Your task to perform on an android device: Search for razer naga on newegg, select the first entry, add it to the cart, then select checkout. Image 0: 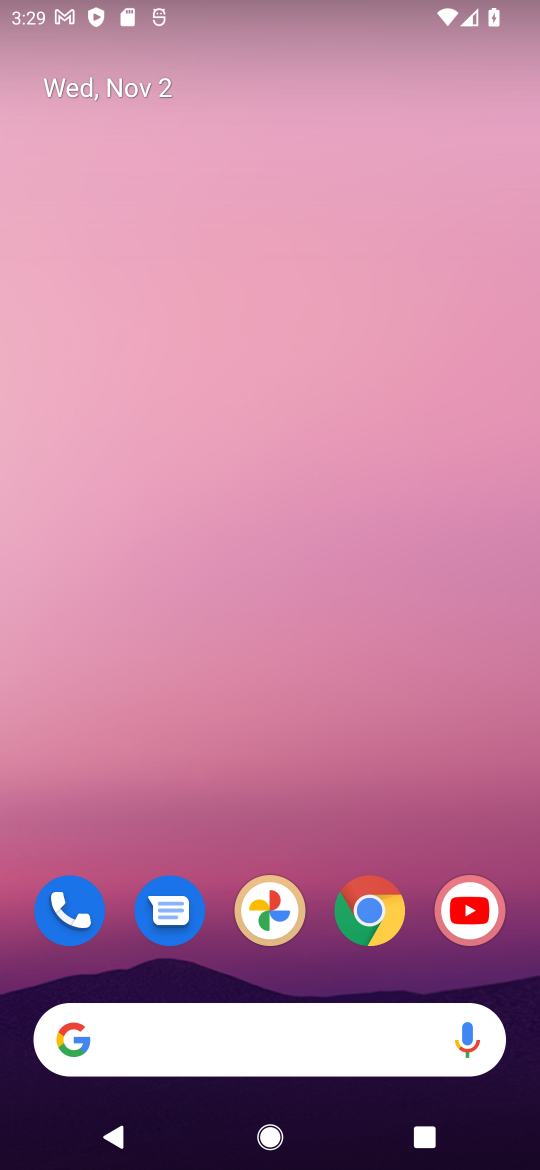
Step 0: click (371, 914)
Your task to perform on an android device: Search for razer naga on newegg, select the first entry, add it to the cart, then select checkout. Image 1: 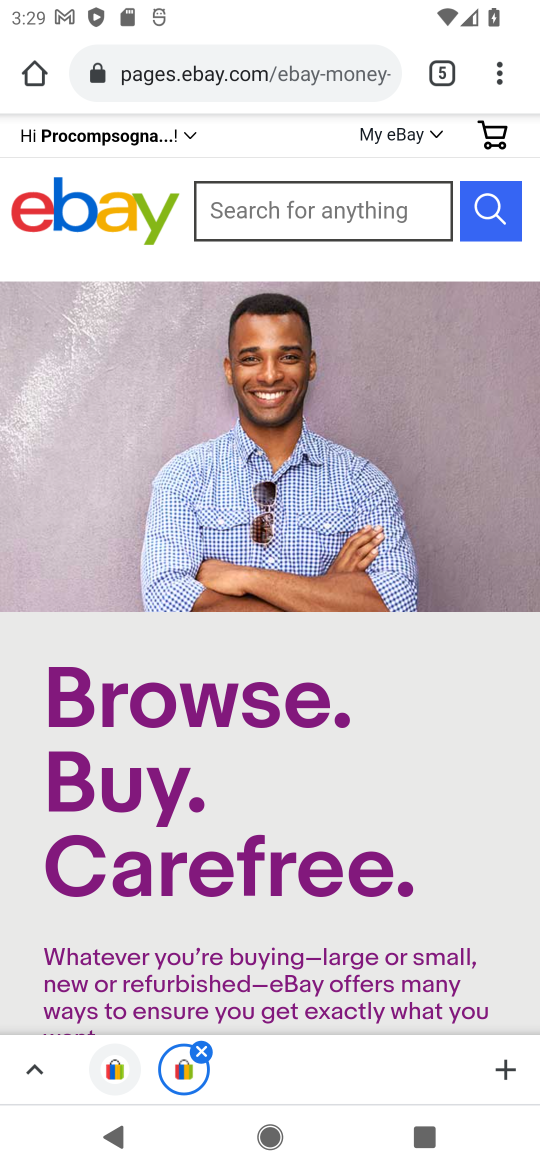
Step 1: click (444, 65)
Your task to perform on an android device: Search for razer naga on newegg, select the first entry, add it to the cart, then select checkout. Image 2: 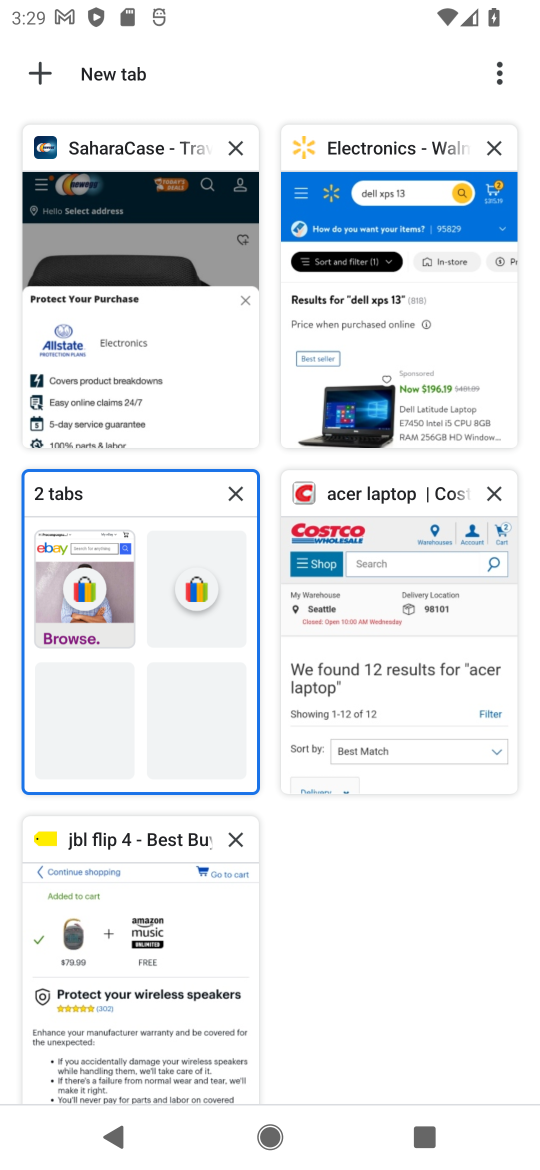
Step 2: click (81, 190)
Your task to perform on an android device: Search for razer naga on newegg, select the first entry, add it to the cart, then select checkout. Image 3: 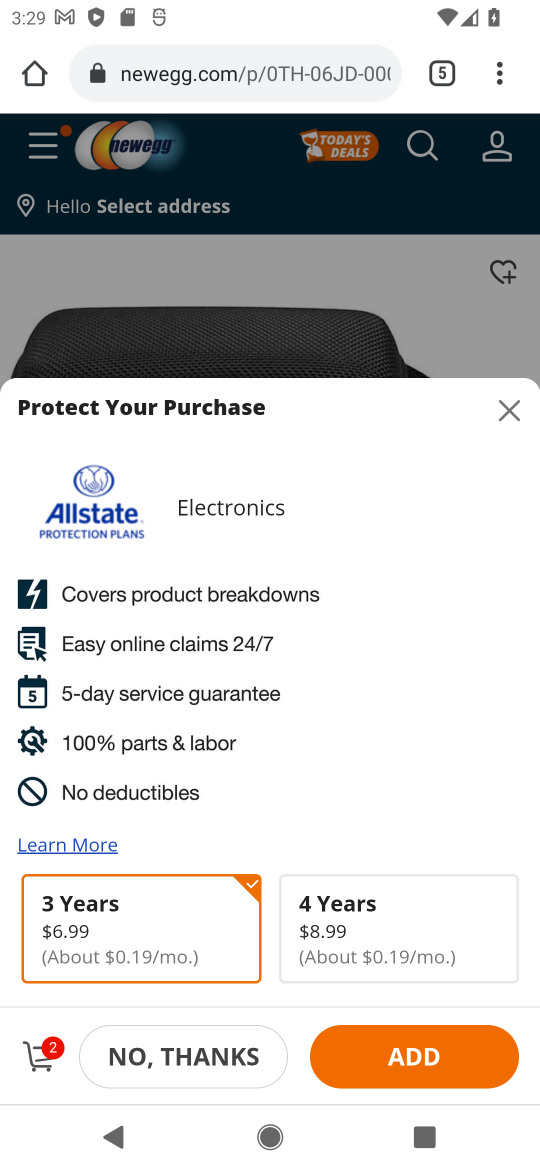
Step 3: click (228, 1060)
Your task to perform on an android device: Search for razer naga on newegg, select the first entry, add it to the cart, then select checkout. Image 4: 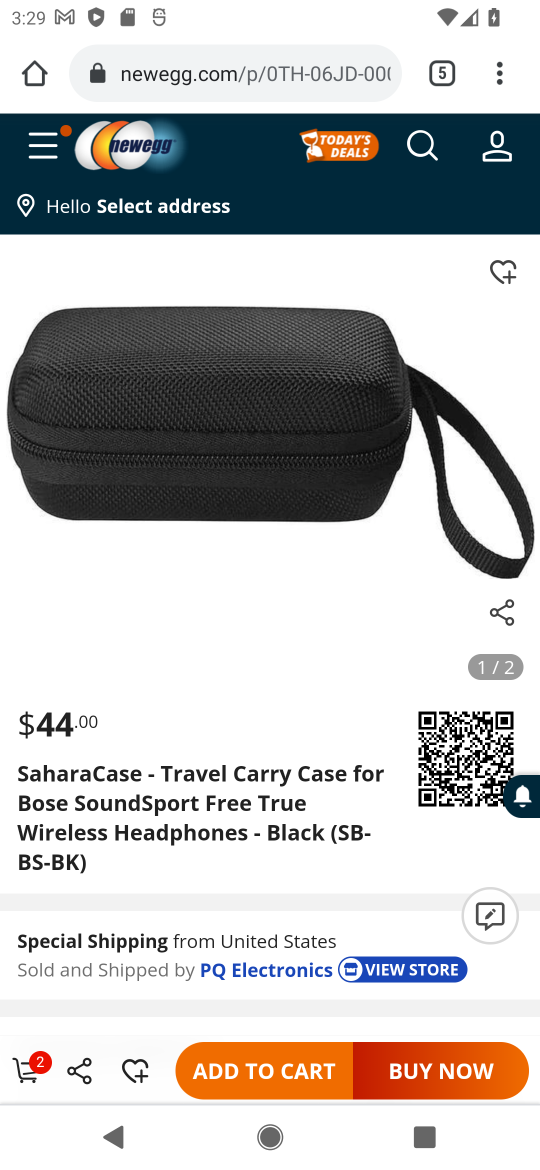
Step 4: click (424, 141)
Your task to perform on an android device: Search for razer naga on newegg, select the first entry, add it to the cart, then select checkout. Image 5: 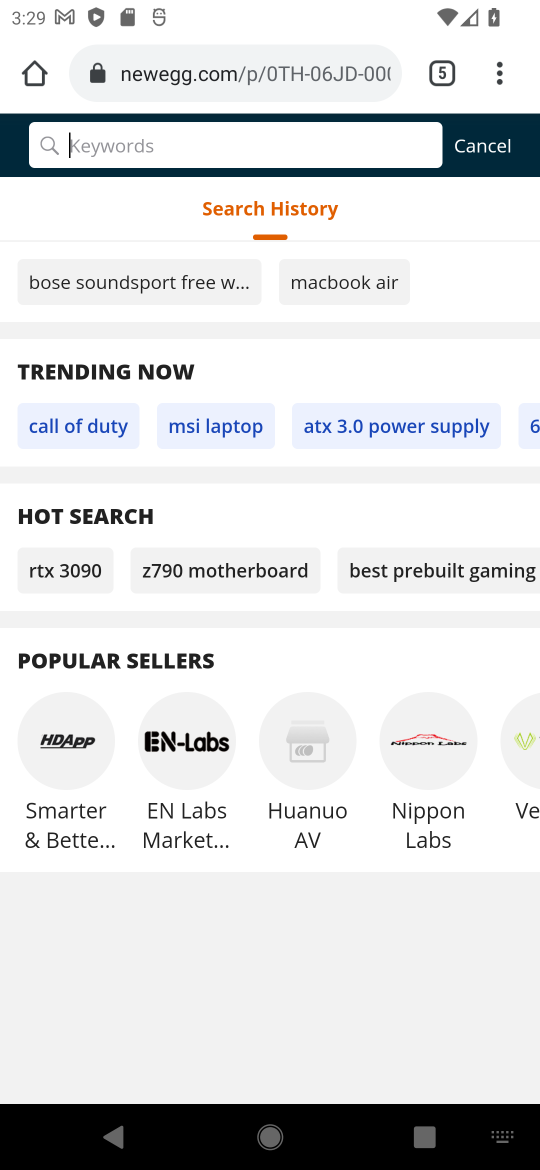
Step 5: type "razer naga"
Your task to perform on an android device: Search for razer naga on newegg, select the first entry, add it to the cart, then select checkout. Image 6: 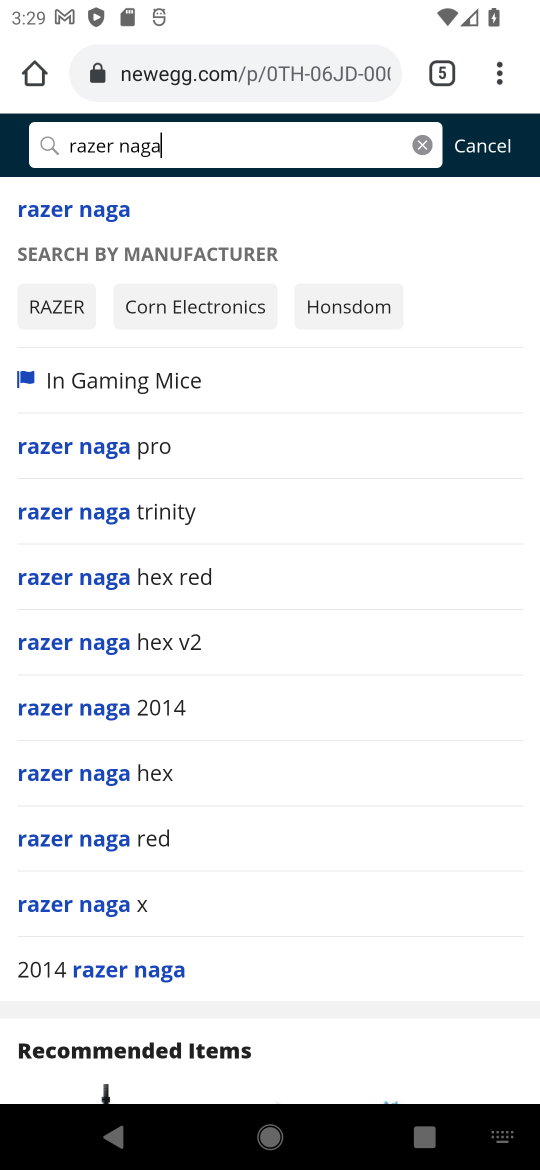
Step 6: click (107, 208)
Your task to perform on an android device: Search for razer naga on newegg, select the first entry, add it to the cart, then select checkout. Image 7: 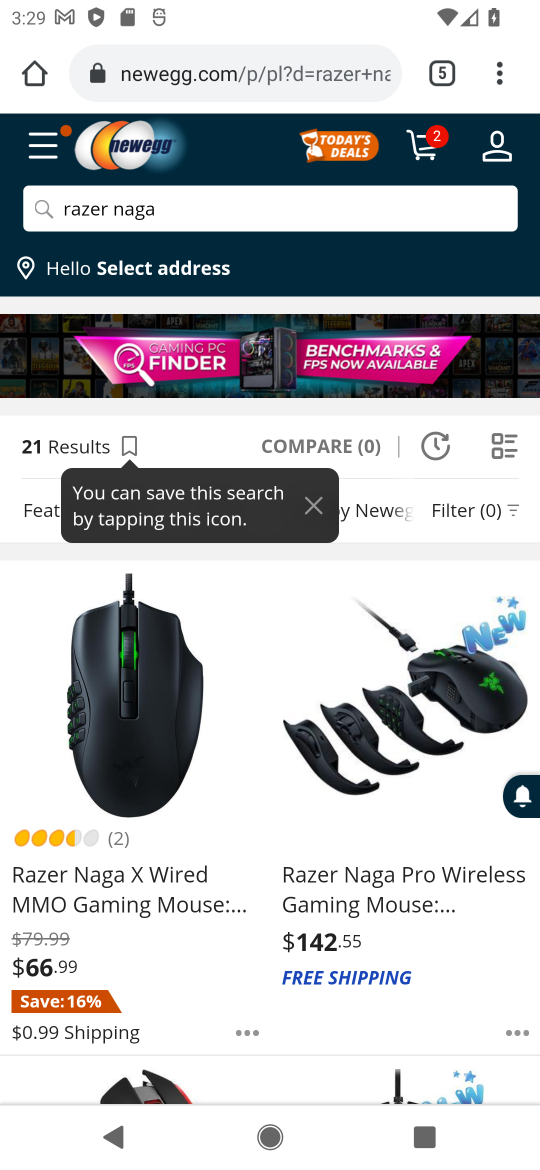
Step 7: click (79, 885)
Your task to perform on an android device: Search for razer naga on newegg, select the first entry, add it to the cart, then select checkout. Image 8: 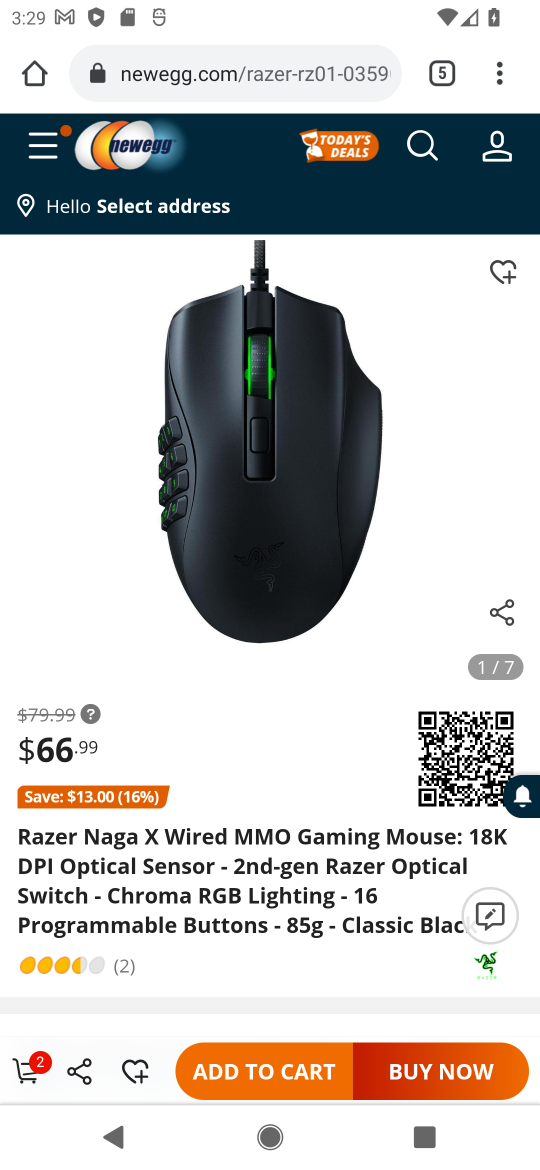
Step 8: click (220, 1069)
Your task to perform on an android device: Search for razer naga on newegg, select the first entry, add it to the cart, then select checkout. Image 9: 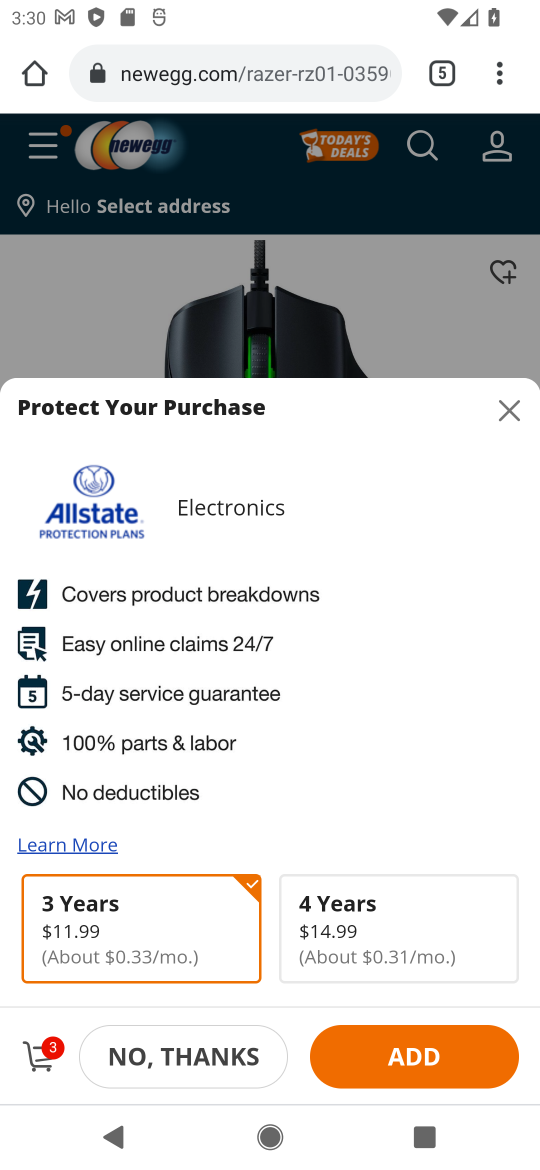
Step 9: click (159, 1065)
Your task to perform on an android device: Search for razer naga on newegg, select the first entry, add it to the cart, then select checkout. Image 10: 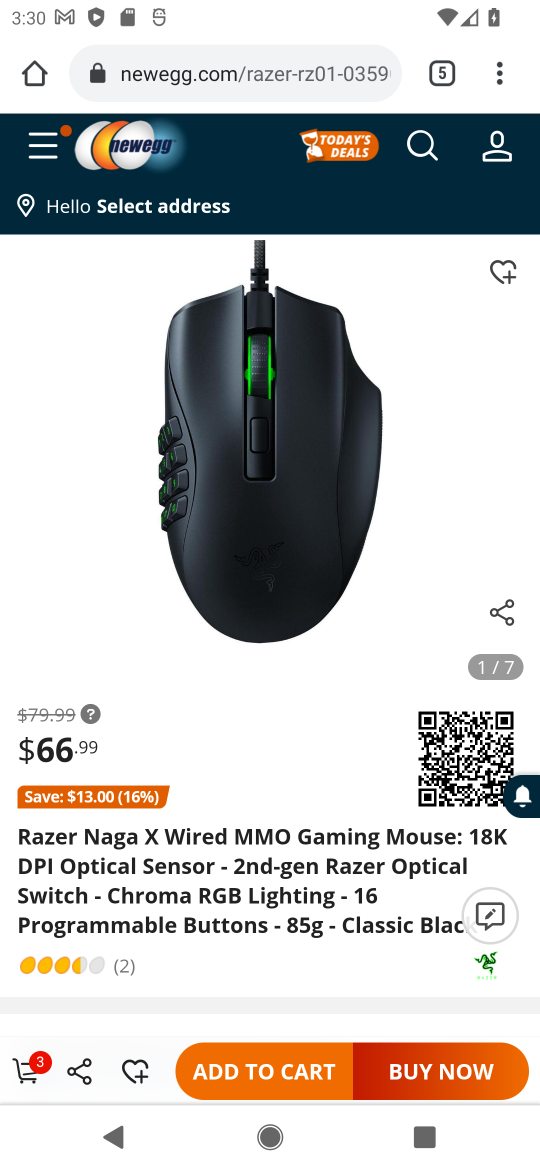
Step 10: click (23, 1072)
Your task to perform on an android device: Search for razer naga on newegg, select the first entry, add it to the cart, then select checkout. Image 11: 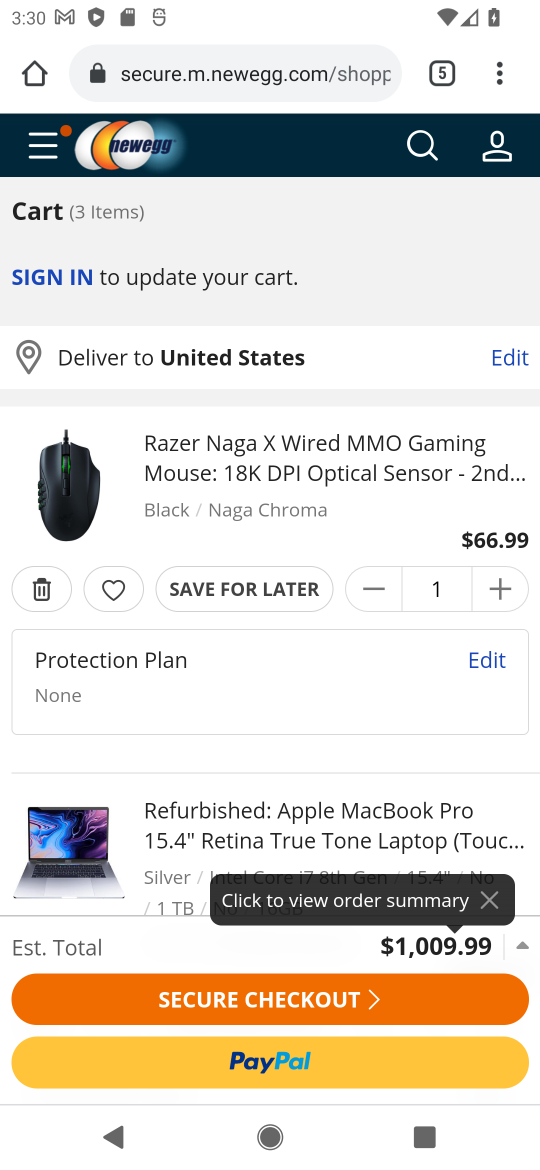
Step 11: click (209, 1006)
Your task to perform on an android device: Search for razer naga on newegg, select the first entry, add it to the cart, then select checkout. Image 12: 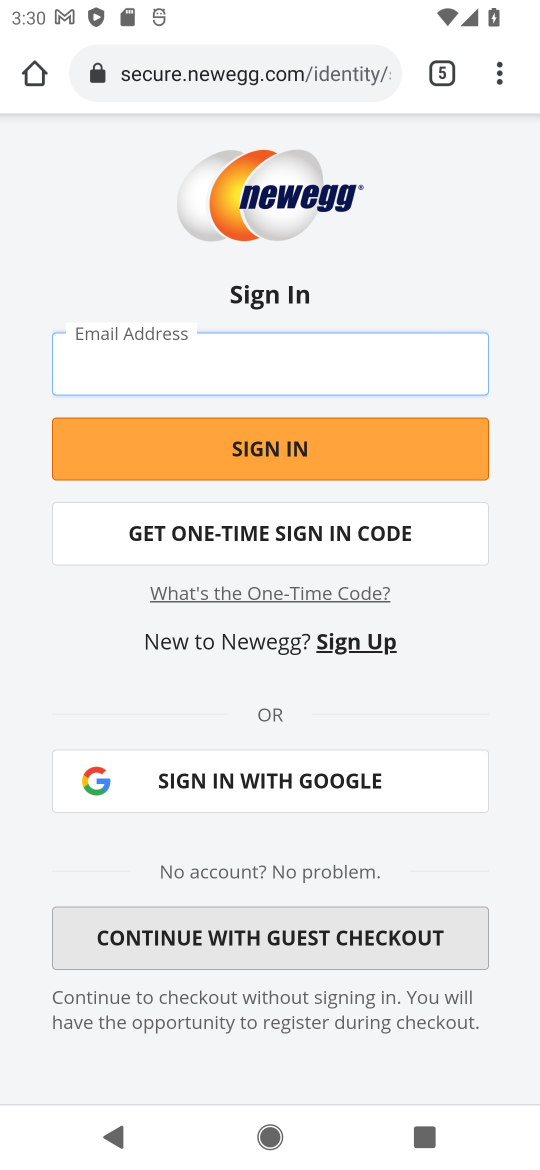
Step 12: task complete